Your task to perform on an android device: Clear all items from cart on target.com. Search for energizer triple a on target.com, select the first entry, and add it to the cart. Image 0: 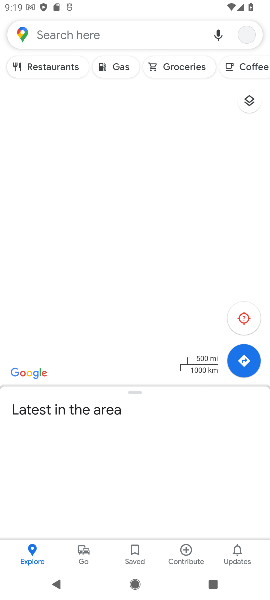
Step 0: task complete